Your task to perform on an android device: empty trash in the gmail app Image 0: 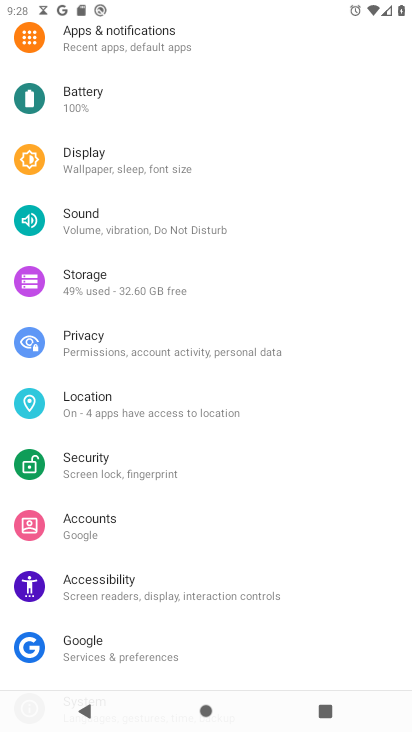
Step 0: press home button
Your task to perform on an android device: empty trash in the gmail app Image 1: 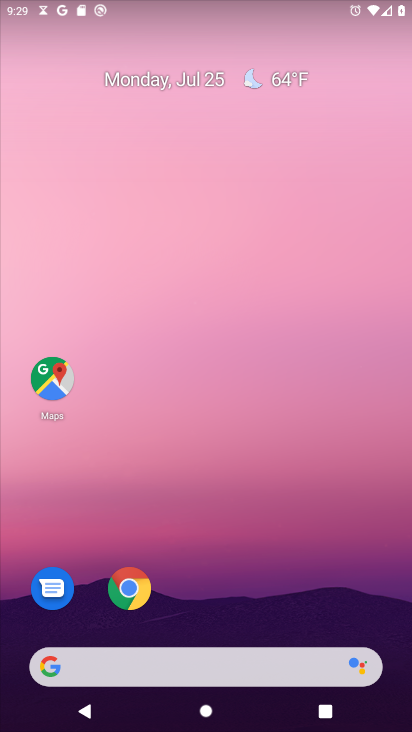
Step 1: drag from (224, 668) to (187, 115)
Your task to perform on an android device: empty trash in the gmail app Image 2: 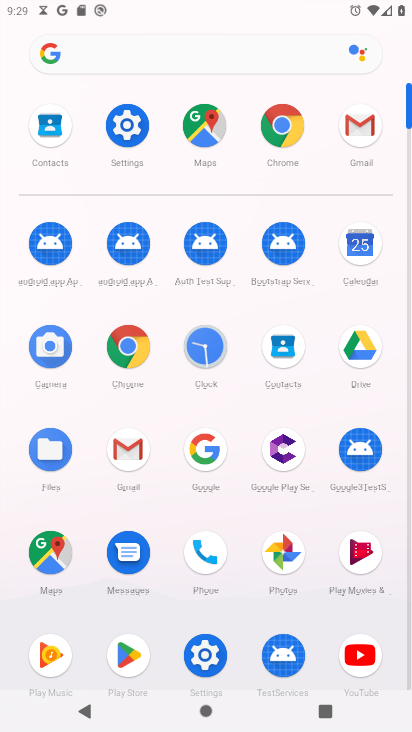
Step 2: click (135, 451)
Your task to perform on an android device: empty trash in the gmail app Image 3: 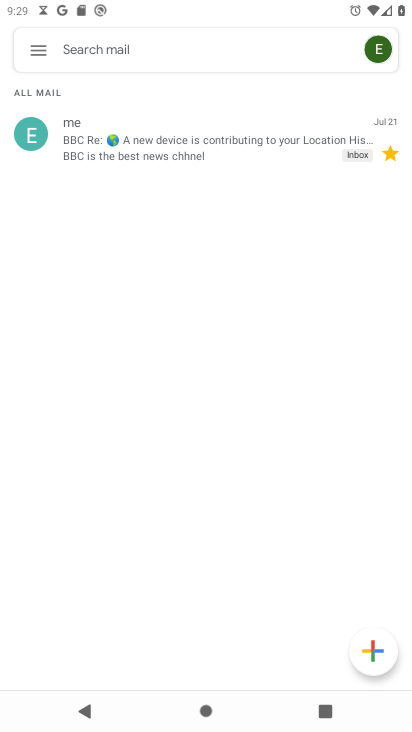
Step 3: click (38, 57)
Your task to perform on an android device: empty trash in the gmail app Image 4: 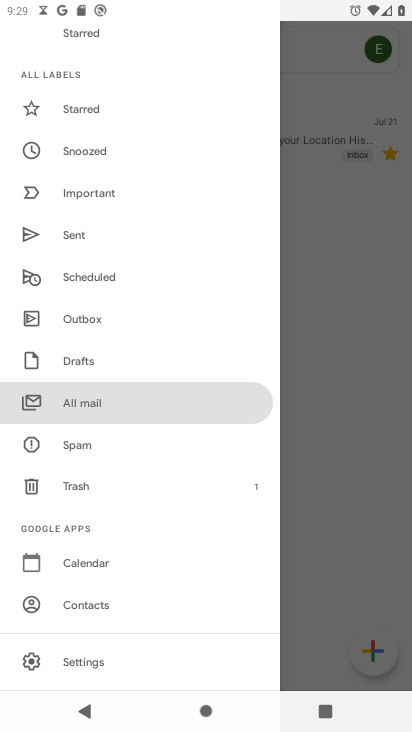
Step 4: click (72, 485)
Your task to perform on an android device: empty trash in the gmail app Image 5: 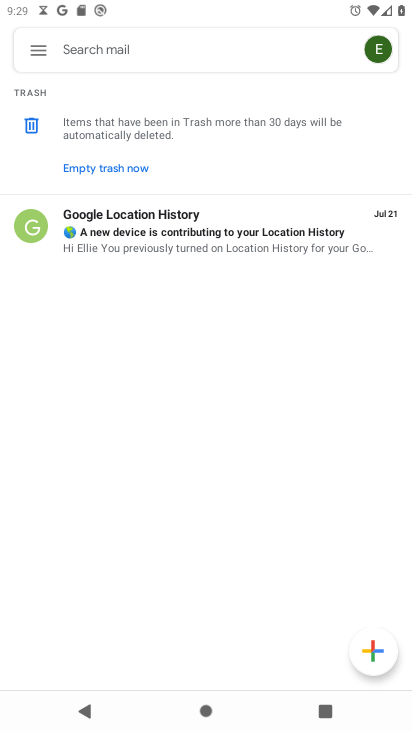
Step 5: click (92, 177)
Your task to perform on an android device: empty trash in the gmail app Image 6: 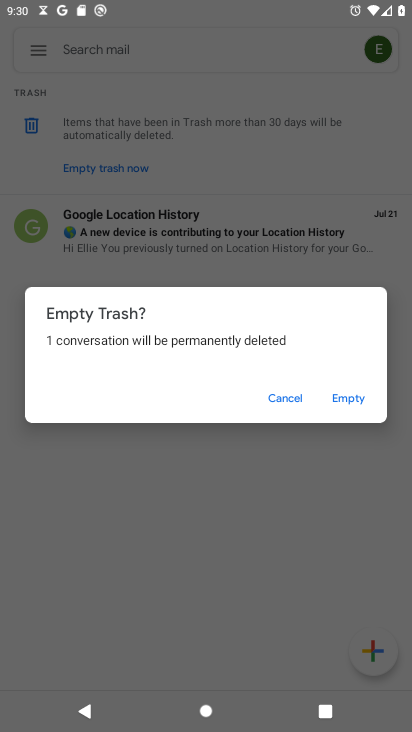
Step 6: click (337, 407)
Your task to perform on an android device: empty trash in the gmail app Image 7: 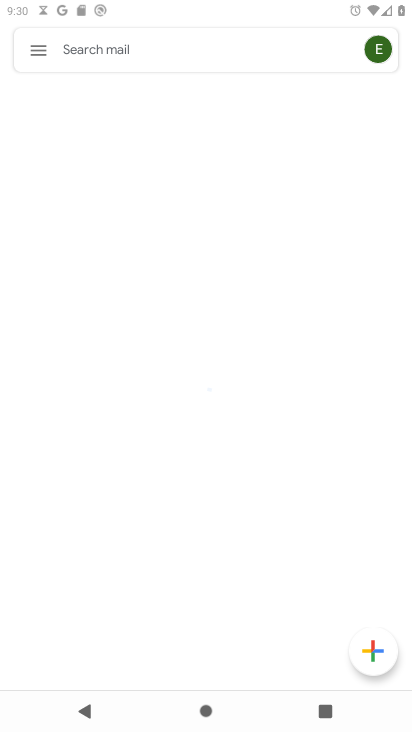
Step 7: task complete